Your task to perform on an android device: install app "Viber Messenger" Image 0: 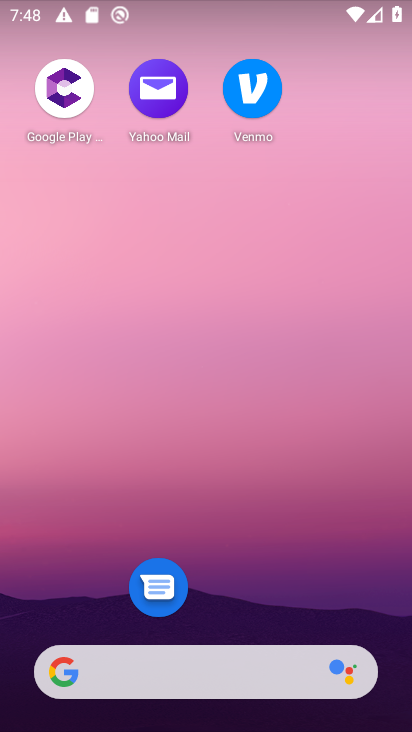
Step 0: drag from (205, 648) to (123, 142)
Your task to perform on an android device: install app "Viber Messenger" Image 1: 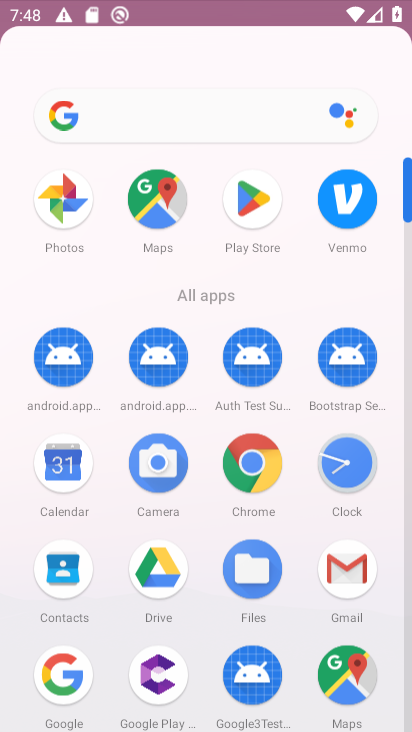
Step 1: drag from (226, 559) to (223, 150)
Your task to perform on an android device: install app "Viber Messenger" Image 2: 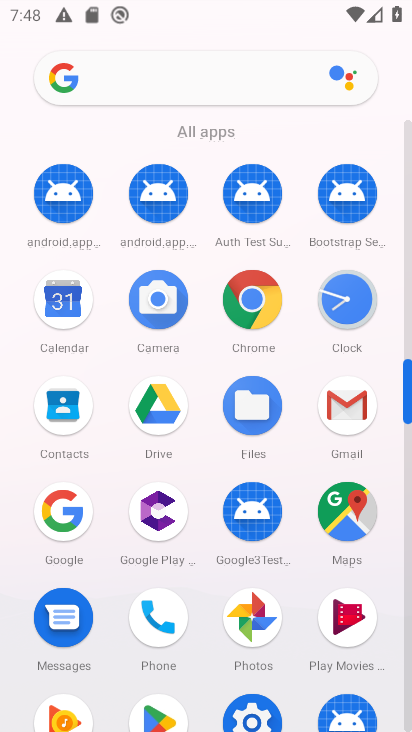
Step 2: drag from (237, 434) to (225, 116)
Your task to perform on an android device: install app "Viber Messenger" Image 3: 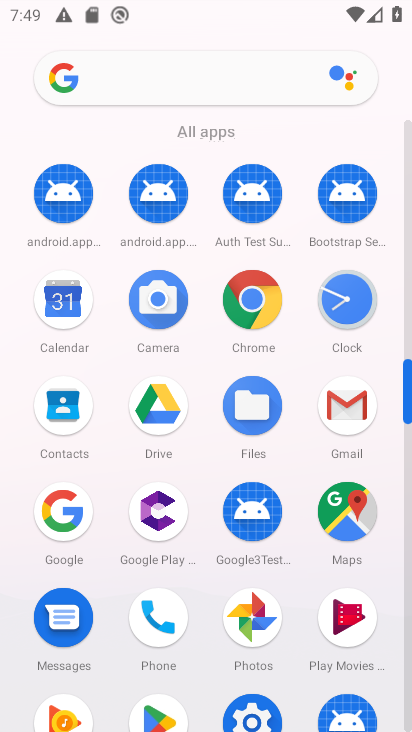
Step 3: drag from (282, 406) to (282, 157)
Your task to perform on an android device: install app "Viber Messenger" Image 4: 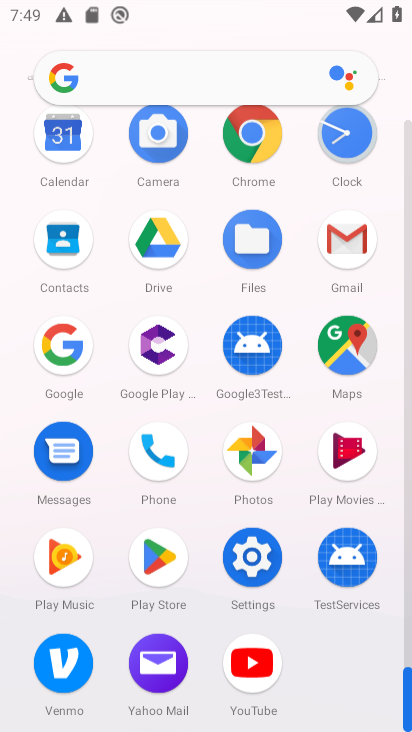
Step 4: drag from (305, 455) to (281, 158)
Your task to perform on an android device: install app "Viber Messenger" Image 5: 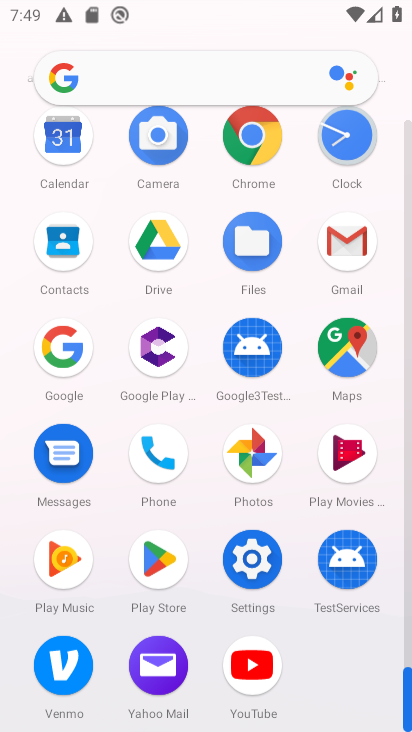
Step 5: drag from (303, 463) to (306, 247)
Your task to perform on an android device: install app "Viber Messenger" Image 6: 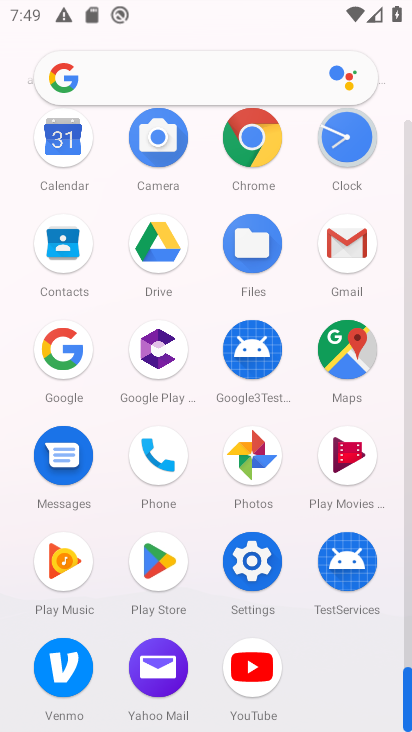
Step 6: click (157, 565)
Your task to perform on an android device: install app "Viber Messenger" Image 7: 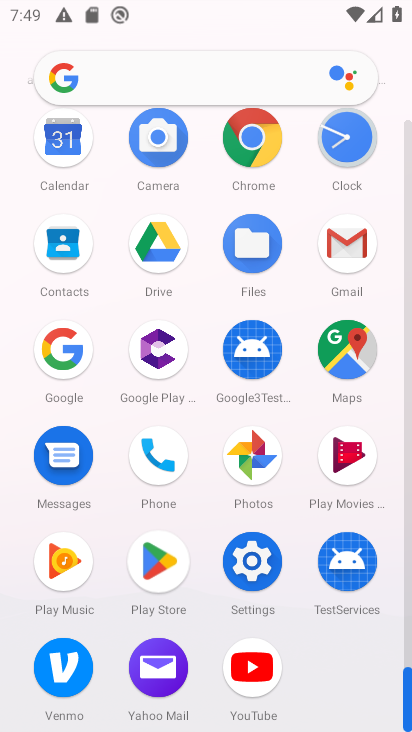
Step 7: click (161, 562)
Your task to perform on an android device: install app "Viber Messenger" Image 8: 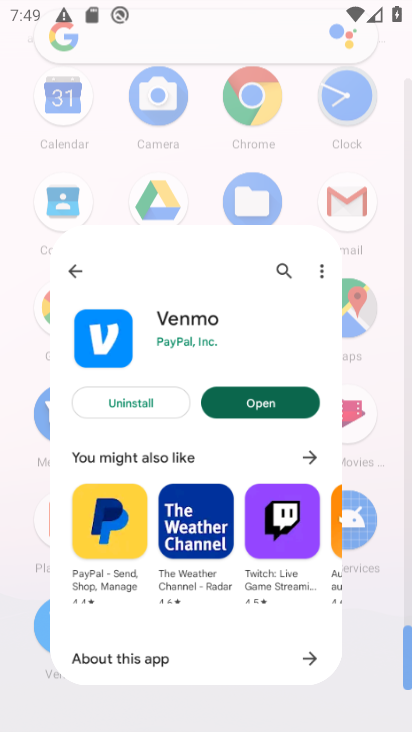
Step 8: click (163, 564)
Your task to perform on an android device: install app "Viber Messenger" Image 9: 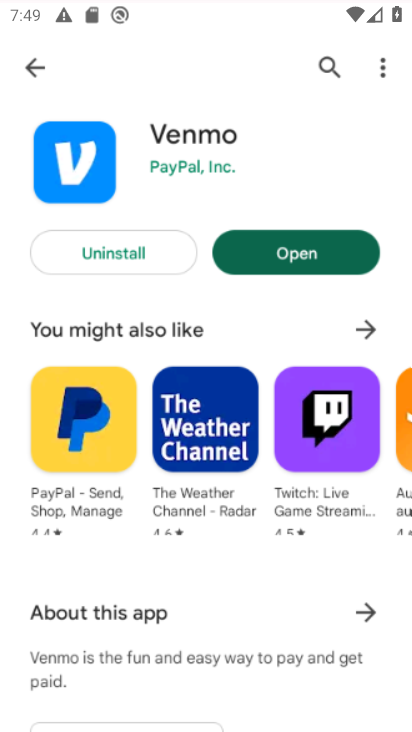
Step 9: click (161, 566)
Your task to perform on an android device: install app "Viber Messenger" Image 10: 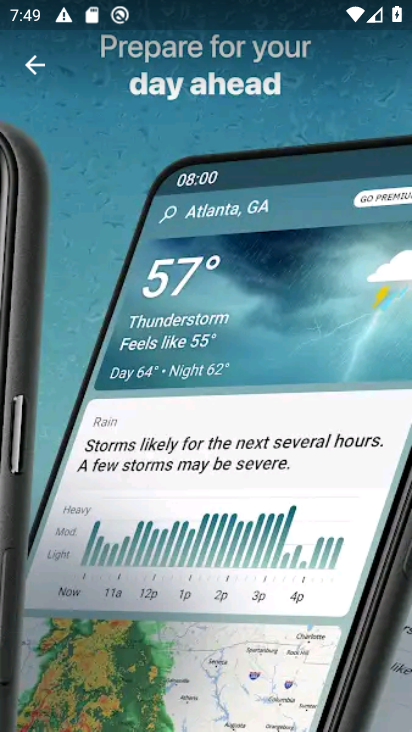
Step 10: click (32, 77)
Your task to perform on an android device: install app "Viber Messenger" Image 11: 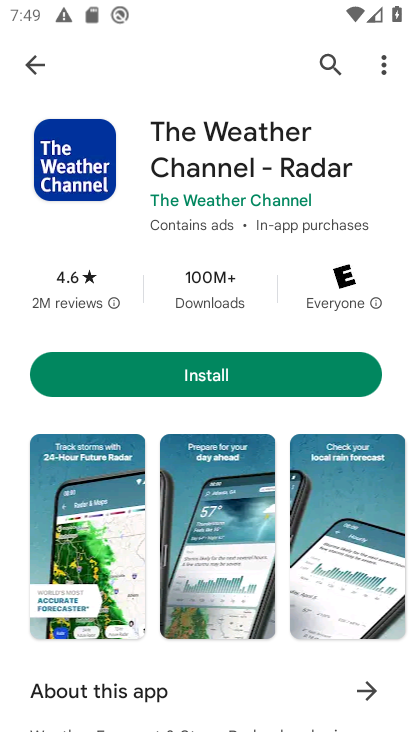
Step 11: click (32, 75)
Your task to perform on an android device: install app "Viber Messenger" Image 12: 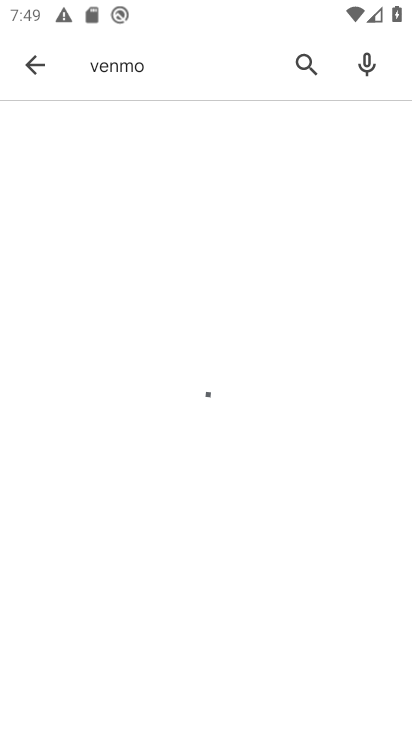
Step 12: click (32, 75)
Your task to perform on an android device: install app "Viber Messenger" Image 13: 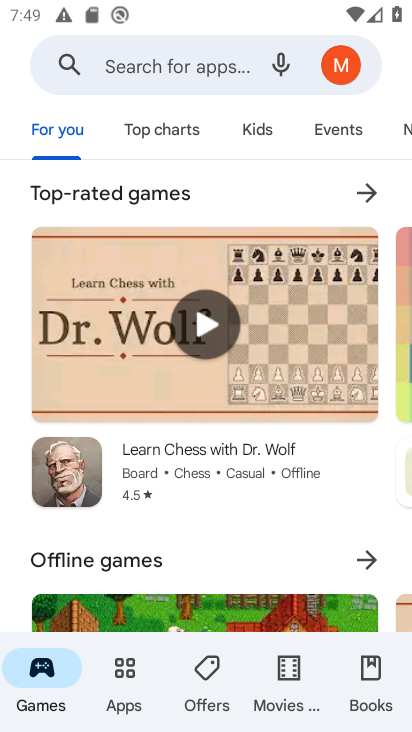
Step 13: click (109, 65)
Your task to perform on an android device: install app "Viber Messenger" Image 14: 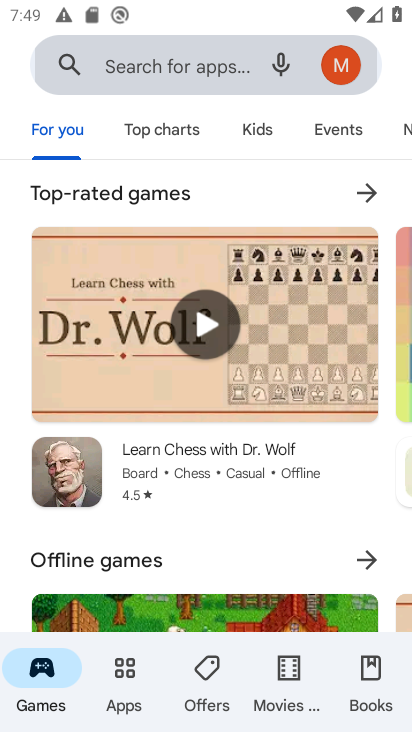
Step 14: click (122, 71)
Your task to perform on an android device: install app "Viber Messenger" Image 15: 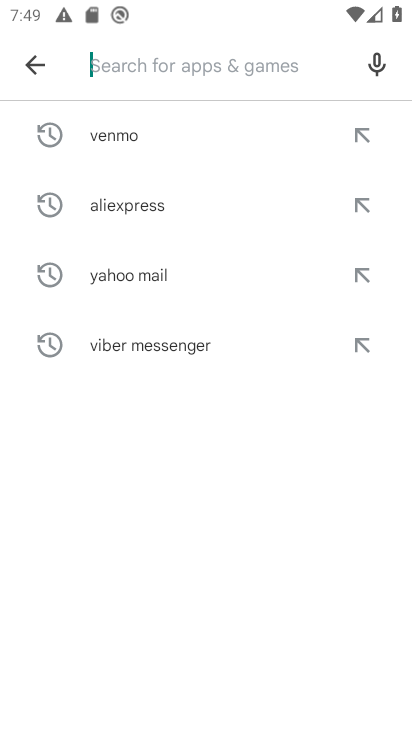
Step 15: click (130, 70)
Your task to perform on an android device: install app "Viber Messenger" Image 16: 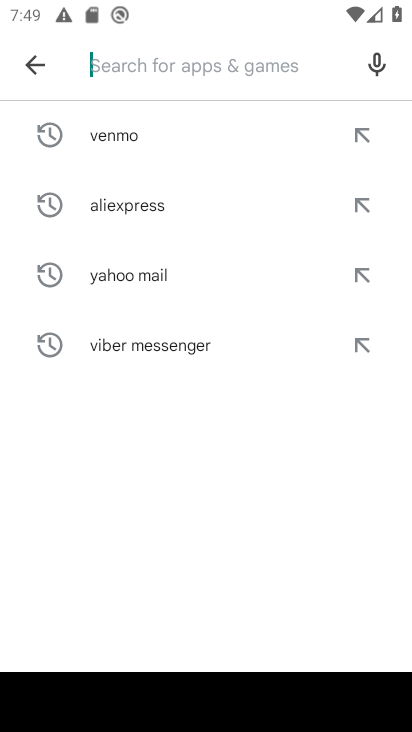
Step 16: type "viber messenger"
Your task to perform on an android device: install app "Viber Messenger" Image 17: 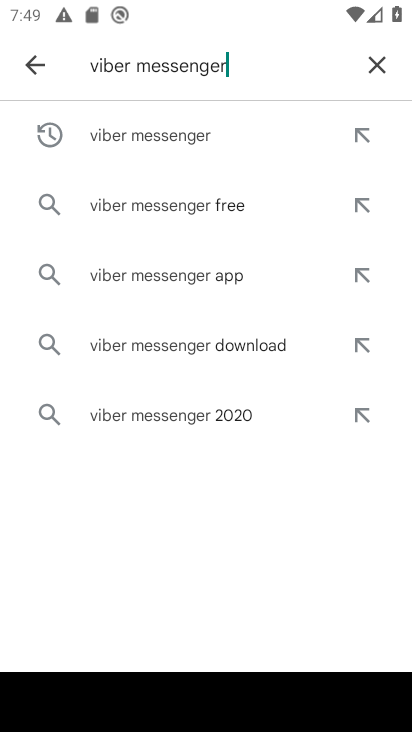
Step 17: click (184, 136)
Your task to perform on an android device: install app "Viber Messenger" Image 18: 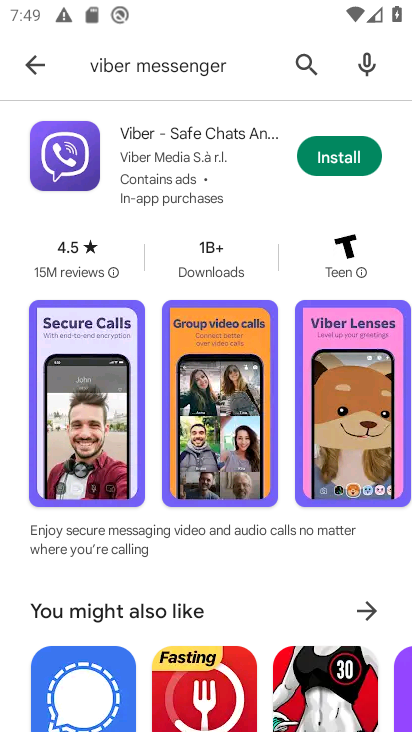
Step 18: click (346, 158)
Your task to perform on an android device: install app "Viber Messenger" Image 19: 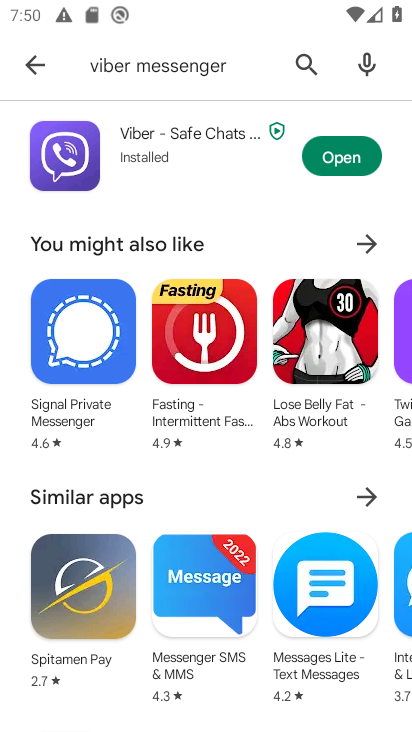
Step 19: click (335, 146)
Your task to perform on an android device: install app "Viber Messenger" Image 20: 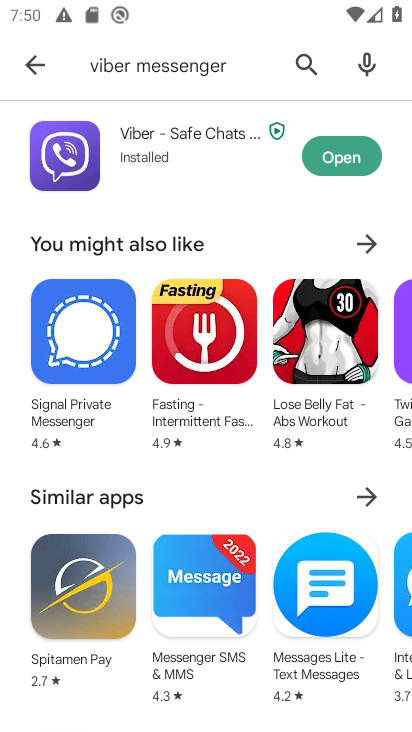
Step 20: click (335, 146)
Your task to perform on an android device: install app "Viber Messenger" Image 21: 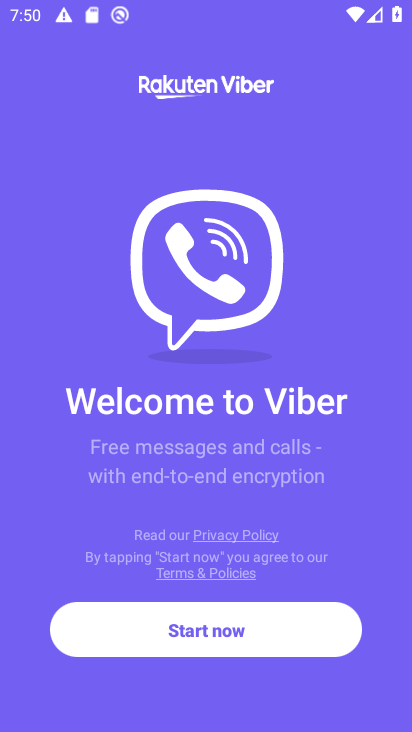
Step 21: task complete